Your task to perform on an android device: empty trash in the gmail app Image 0: 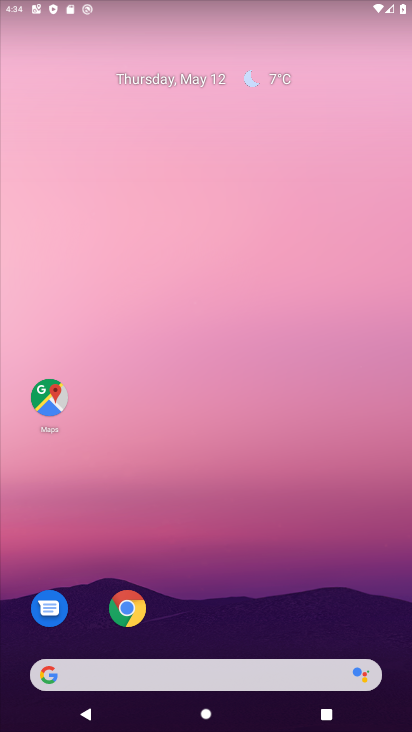
Step 0: drag from (175, 632) to (209, 255)
Your task to perform on an android device: empty trash in the gmail app Image 1: 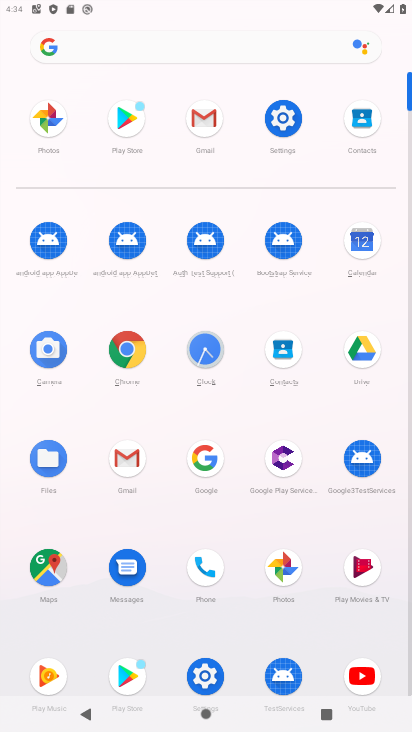
Step 1: click (208, 116)
Your task to perform on an android device: empty trash in the gmail app Image 2: 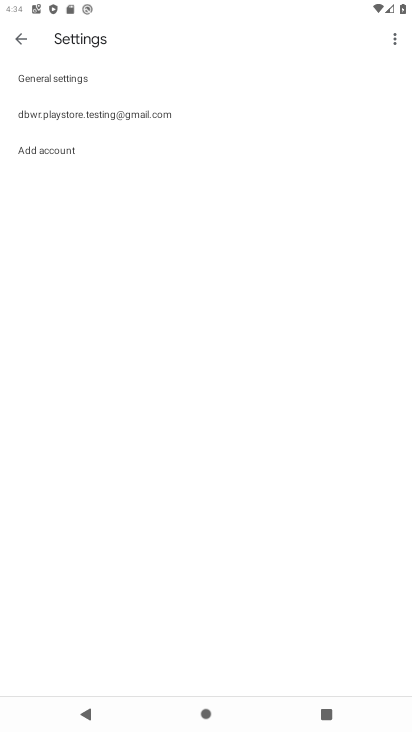
Step 2: click (25, 45)
Your task to perform on an android device: empty trash in the gmail app Image 3: 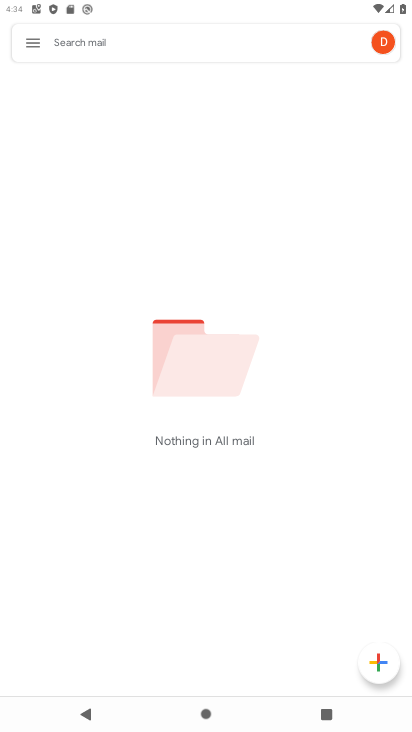
Step 3: click (25, 45)
Your task to perform on an android device: empty trash in the gmail app Image 4: 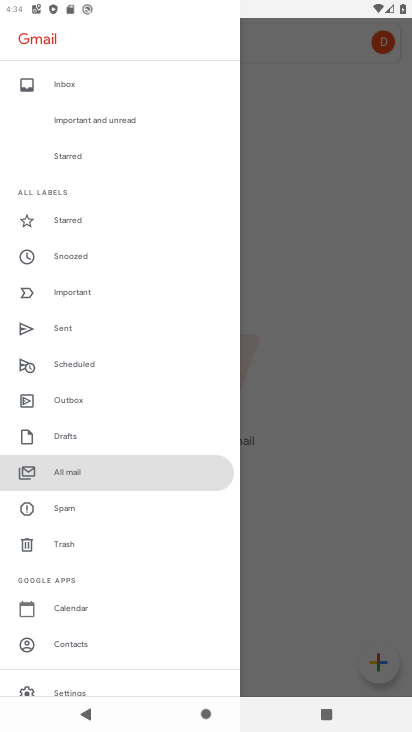
Step 4: click (70, 553)
Your task to perform on an android device: empty trash in the gmail app Image 5: 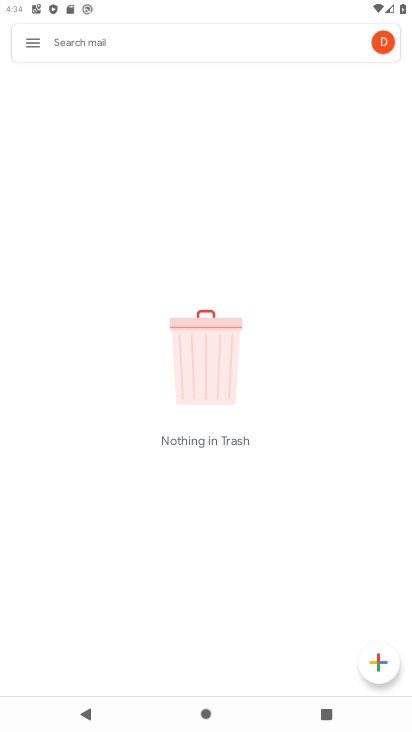
Step 5: task complete